Your task to perform on an android device: Open the phone app and click the voicemail tab. Image 0: 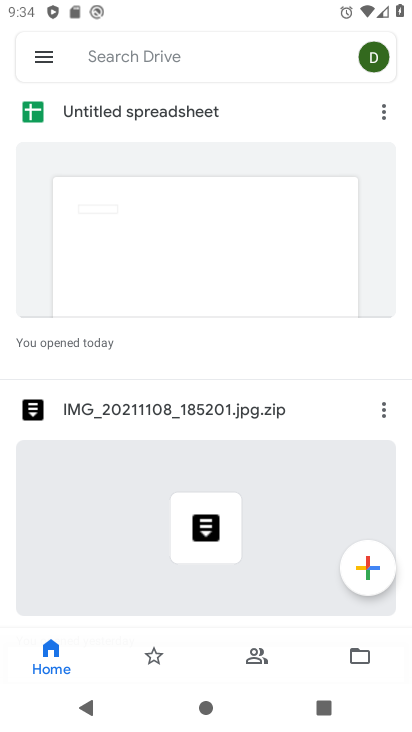
Step 0: press home button
Your task to perform on an android device: Open the phone app and click the voicemail tab. Image 1: 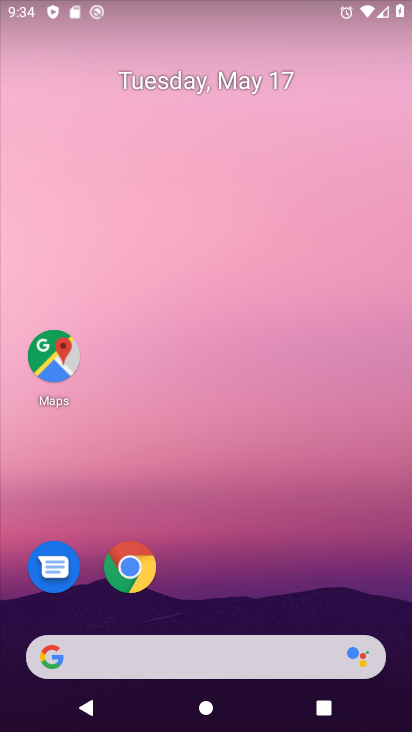
Step 1: drag from (235, 584) to (194, 194)
Your task to perform on an android device: Open the phone app and click the voicemail tab. Image 2: 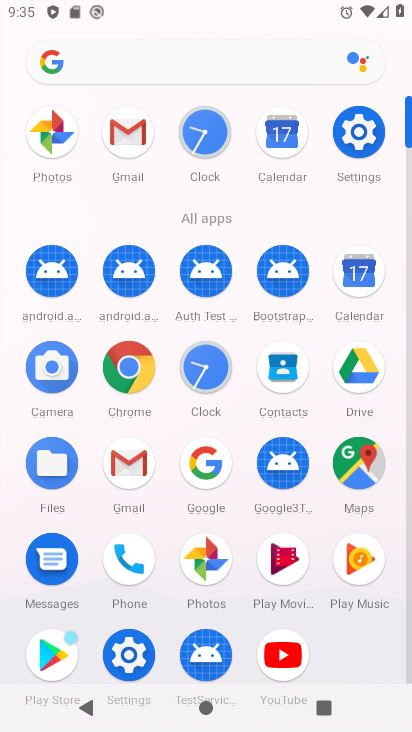
Step 2: drag from (241, 521) to (224, 358)
Your task to perform on an android device: Open the phone app and click the voicemail tab. Image 3: 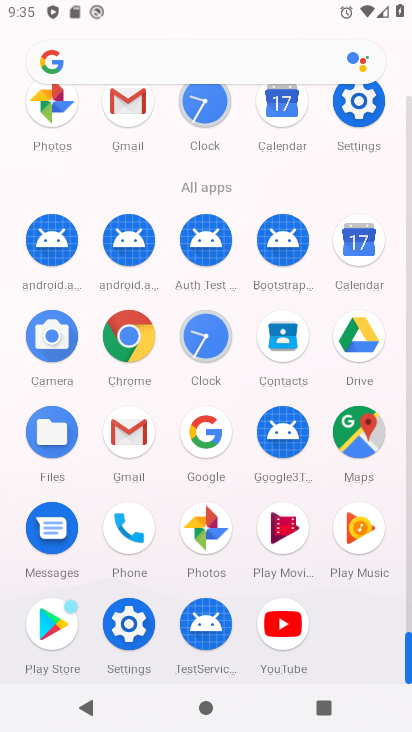
Step 3: click (130, 539)
Your task to perform on an android device: Open the phone app and click the voicemail tab. Image 4: 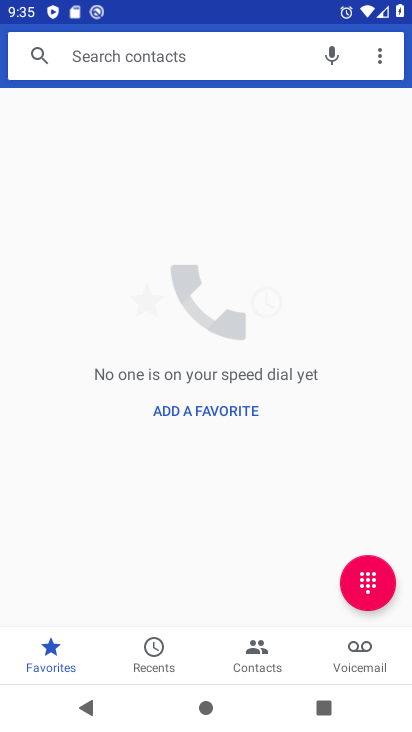
Step 4: click (374, 669)
Your task to perform on an android device: Open the phone app and click the voicemail tab. Image 5: 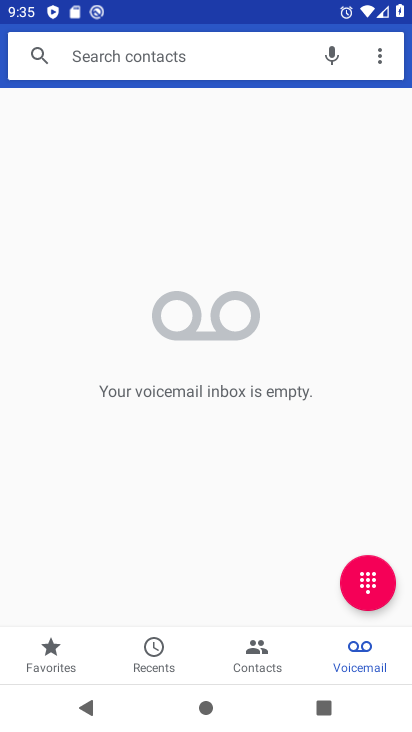
Step 5: task complete